Your task to perform on an android device: check google app version Image 0: 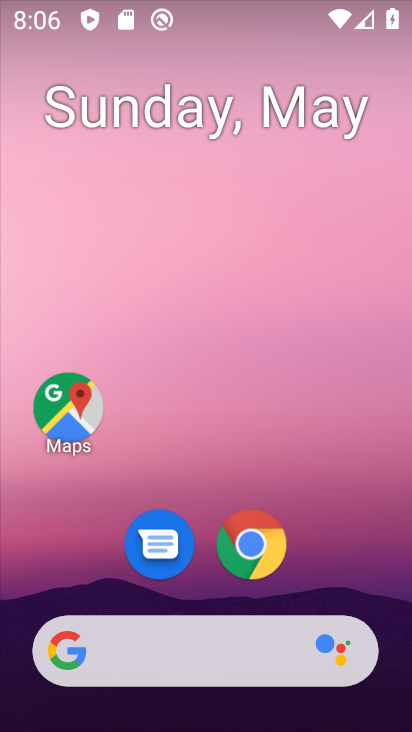
Step 0: drag from (309, 555) to (269, 21)
Your task to perform on an android device: check google app version Image 1: 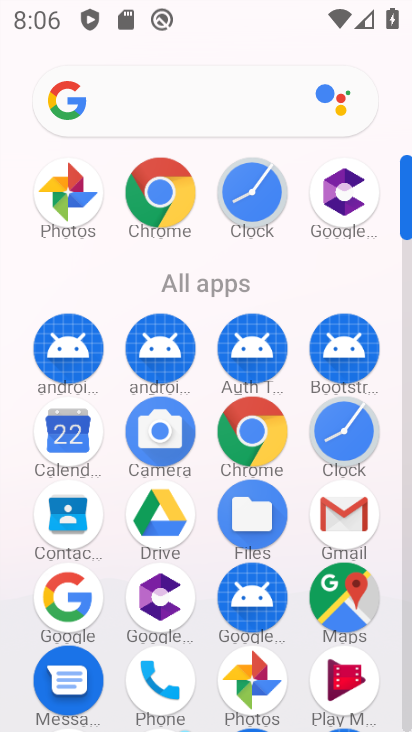
Step 1: drag from (8, 599) to (17, 254)
Your task to perform on an android device: check google app version Image 2: 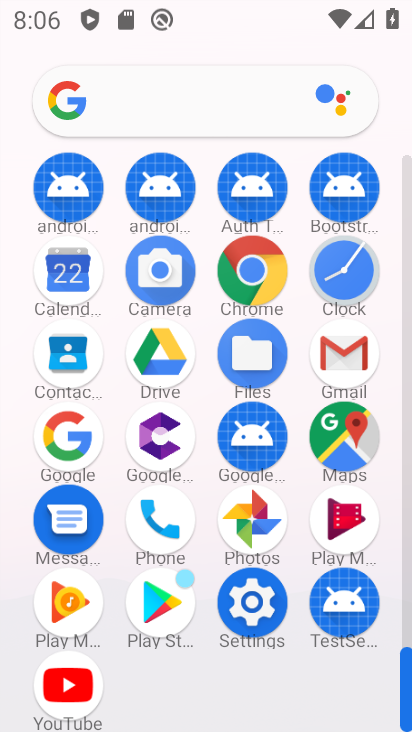
Step 2: click (63, 444)
Your task to perform on an android device: check google app version Image 3: 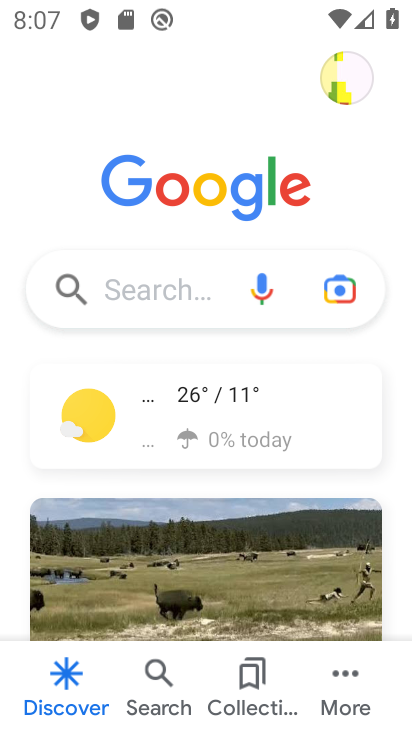
Step 3: click (329, 671)
Your task to perform on an android device: check google app version Image 4: 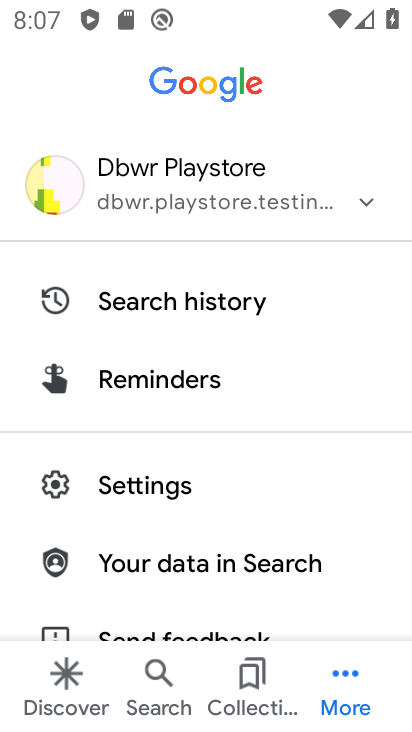
Step 4: click (178, 483)
Your task to perform on an android device: check google app version Image 5: 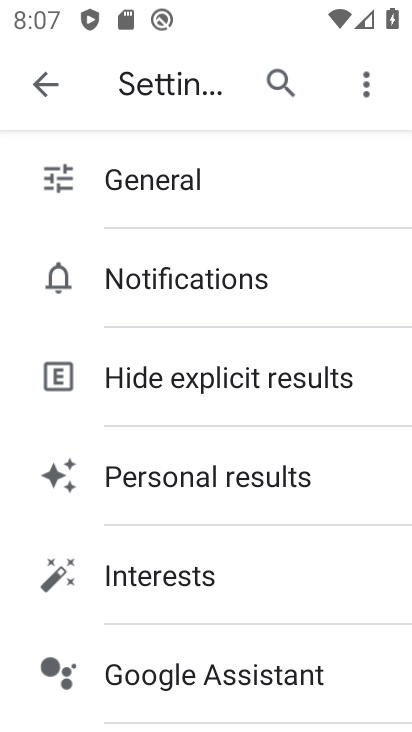
Step 5: drag from (288, 539) to (273, 92)
Your task to perform on an android device: check google app version Image 6: 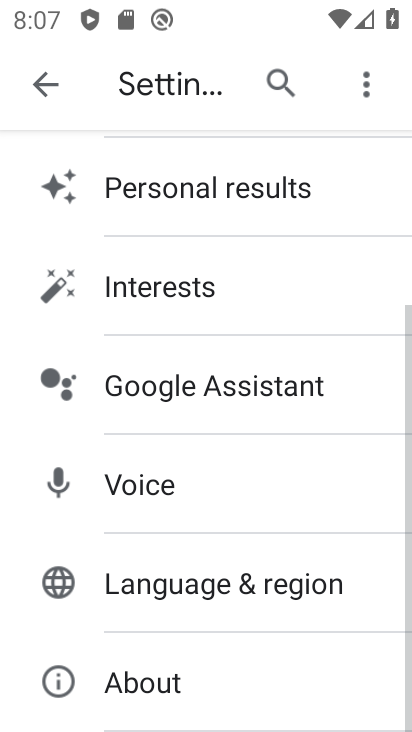
Step 6: click (176, 688)
Your task to perform on an android device: check google app version Image 7: 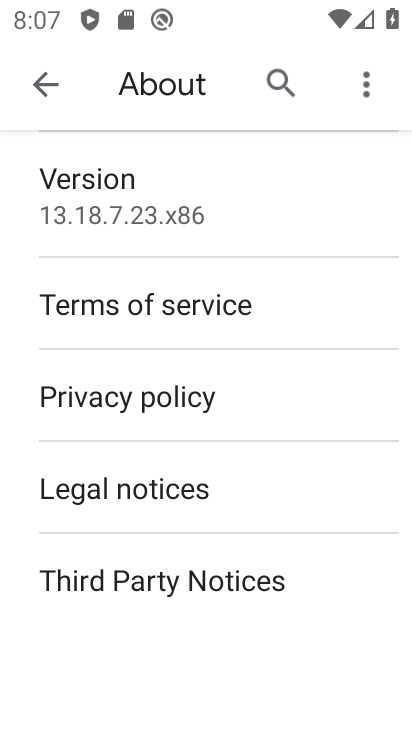
Step 7: task complete